Your task to perform on an android device: open a new tab in the chrome app Image 0: 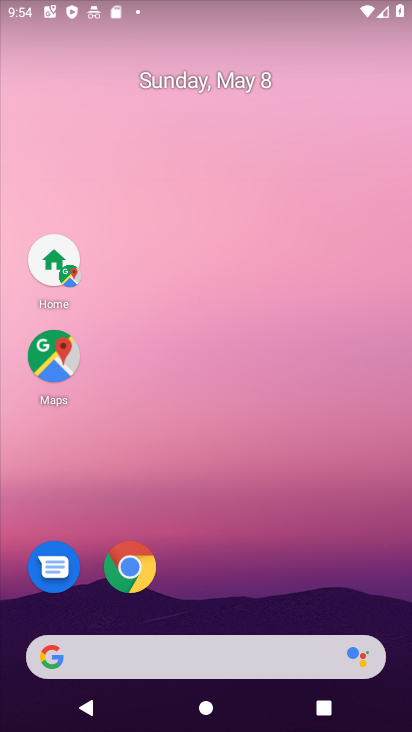
Step 0: click (247, 309)
Your task to perform on an android device: open a new tab in the chrome app Image 1: 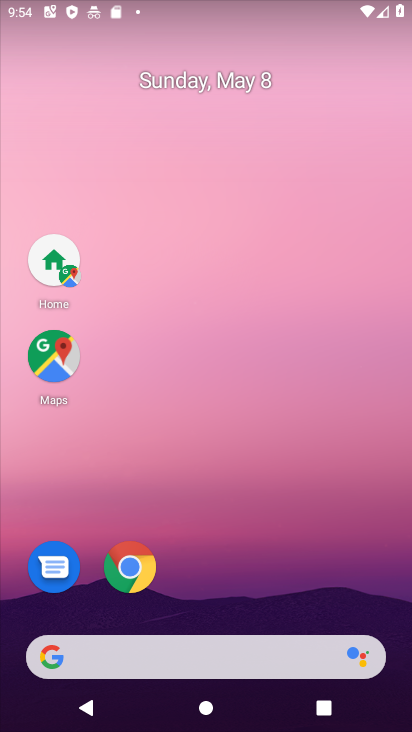
Step 1: click (58, 98)
Your task to perform on an android device: open a new tab in the chrome app Image 2: 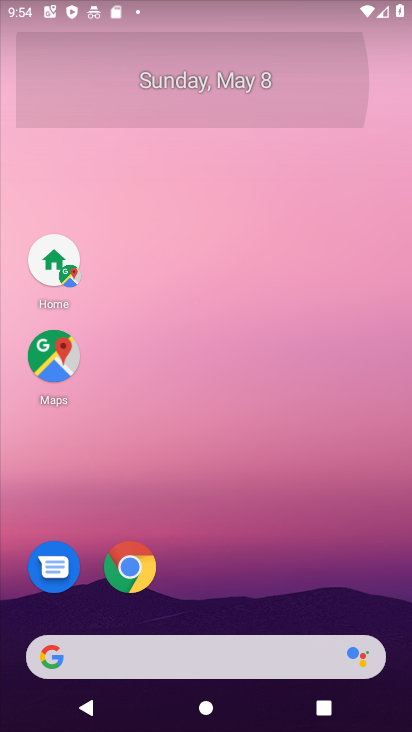
Step 2: click (45, 7)
Your task to perform on an android device: open a new tab in the chrome app Image 3: 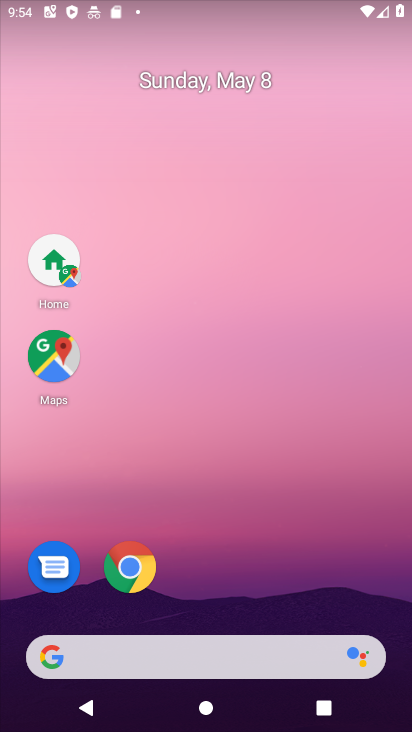
Step 3: drag from (170, 27) to (84, 23)
Your task to perform on an android device: open a new tab in the chrome app Image 4: 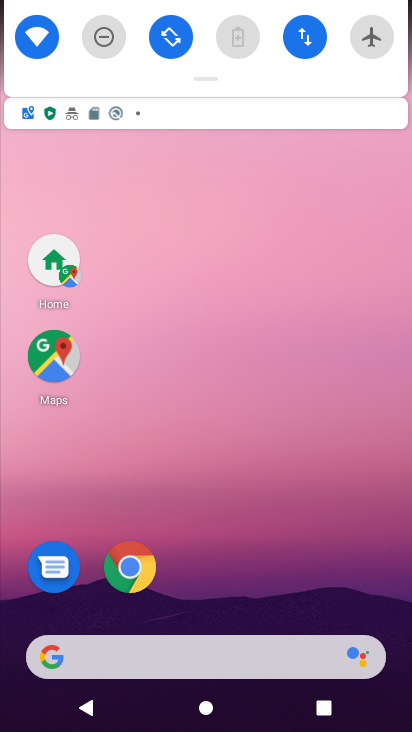
Step 4: drag from (283, 430) to (90, 54)
Your task to perform on an android device: open a new tab in the chrome app Image 5: 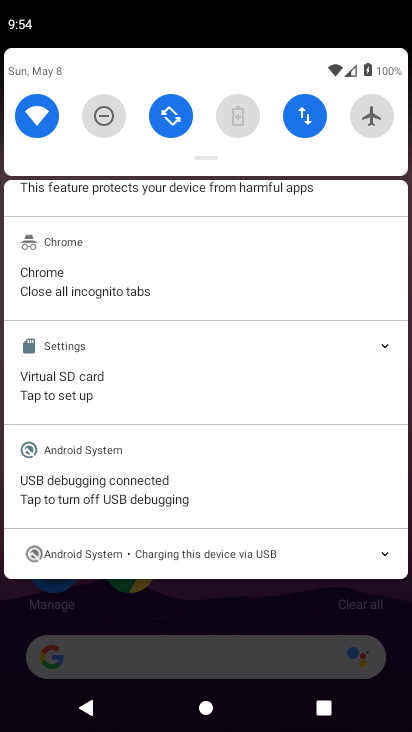
Step 5: drag from (301, 537) to (59, 17)
Your task to perform on an android device: open a new tab in the chrome app Image 6: 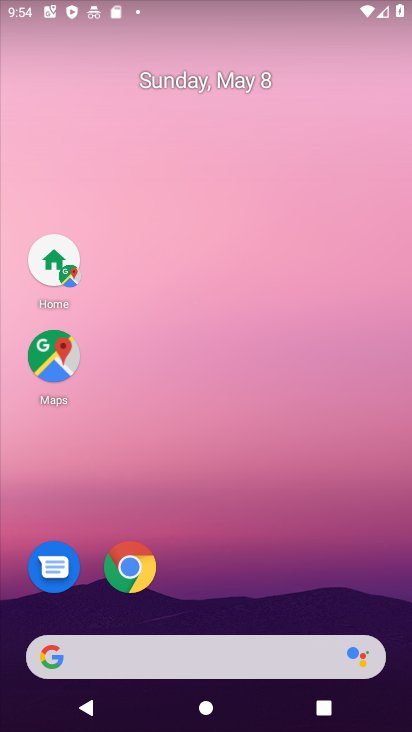
Step 6: click (139, 562)
Your task to perform on an android device: open a new tab in the chrome app Image 7: 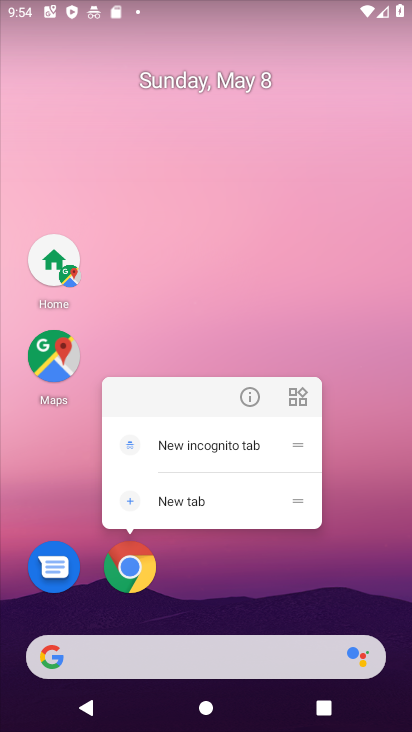
Step 7: click (192, 501)
Your task to perform on an android device: open a new tab in the chrome app Image 8: 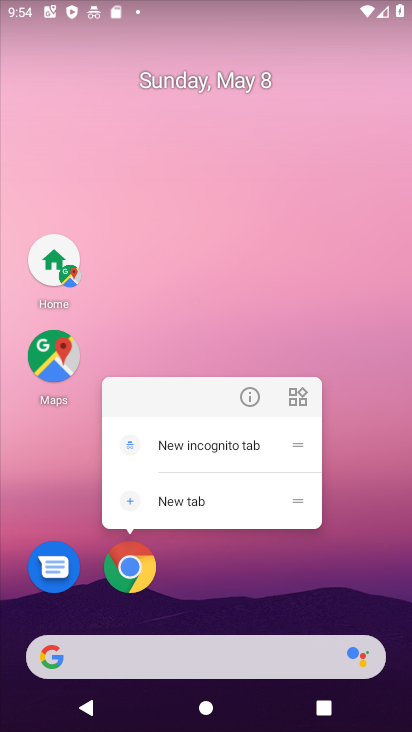
Step 8: click (192, 501)
Your task to perform on an android device: open a new tab in the chrome app Image 9: 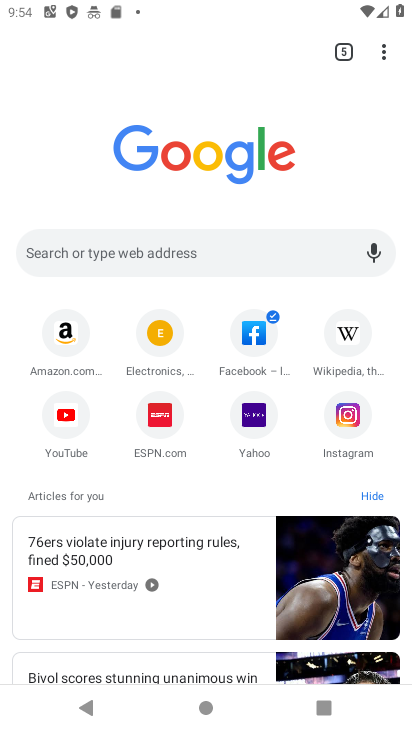
Step 9: task complete